Your task to perform on an android device: turn on notifications settings in the gmail app Image 0: 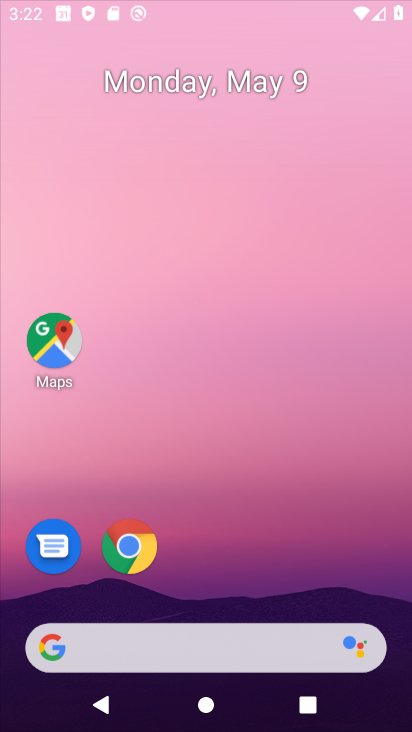
Step 0: drag from (270, 272) to (270, 96)
Your task to perform on an android device: turn on notifications settings in the gmail app Image 1: 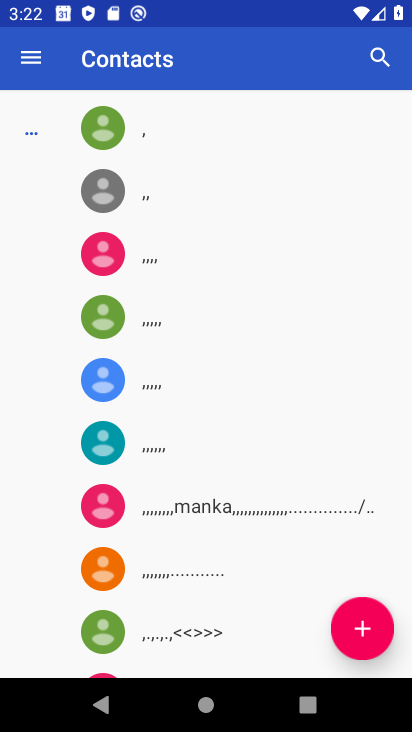
Step 1: press home button
Your task to perform on an android device: turn on notifications settings in the gmail app Image 2: 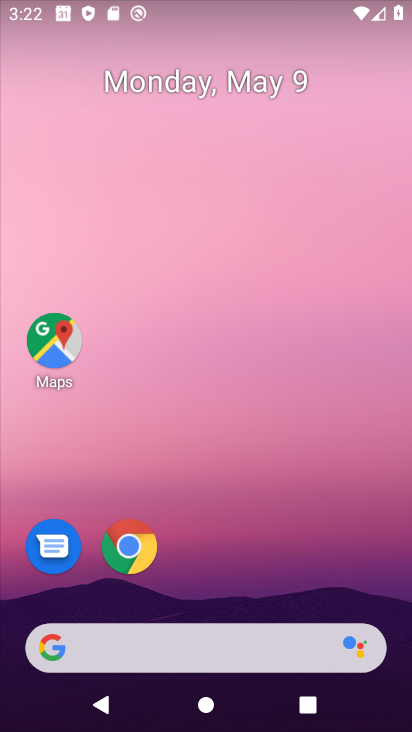
Step 2: drag from (284, 534) to (278, 42)
Your task to perform on an android device: turn on notifications settings in the gmail app Image 3: 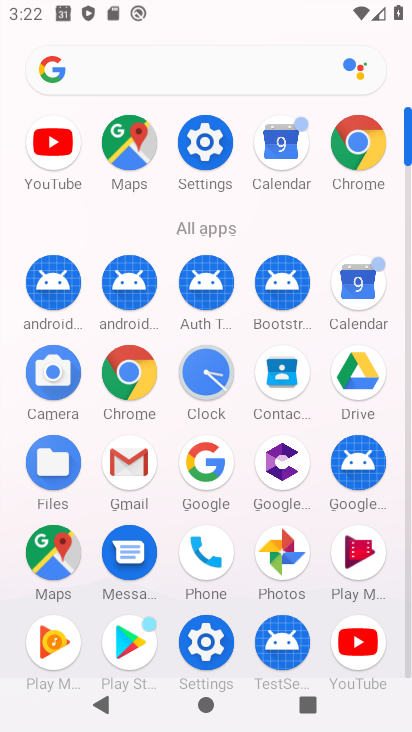
Step 3: click (127, 477)
Your task to perform on an android device: turn on notifications settings in the gmail app Image 4: 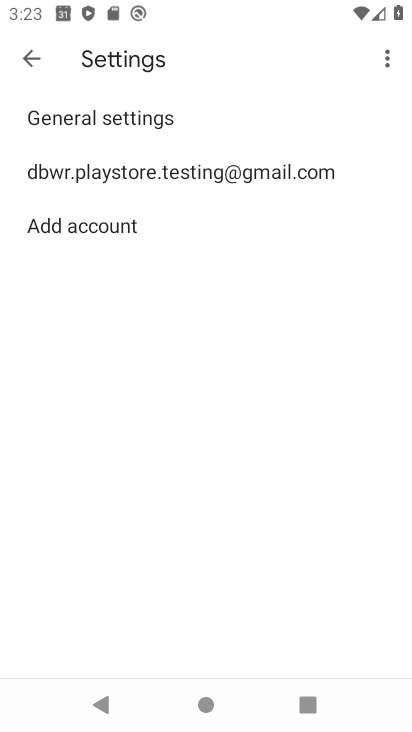
Step 4: press home button
Your task to perform on an android device: turn on notifications settings in the gmail app Image 5: 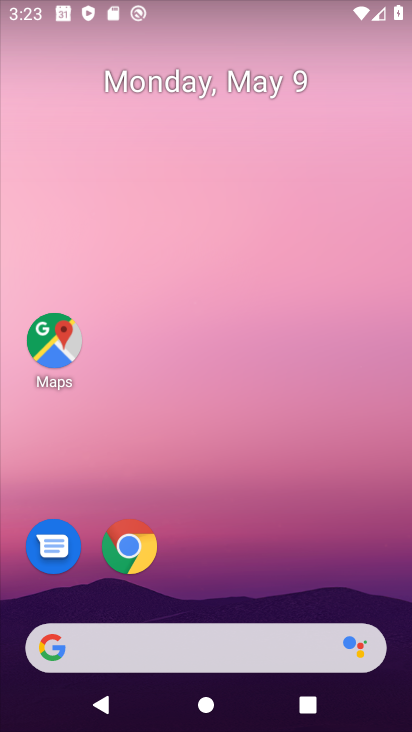
Step 5: drag from (324, 530) to (319, 68)
Your task to perform on an android device: turn on notifications settings in the gmail app Image 6: 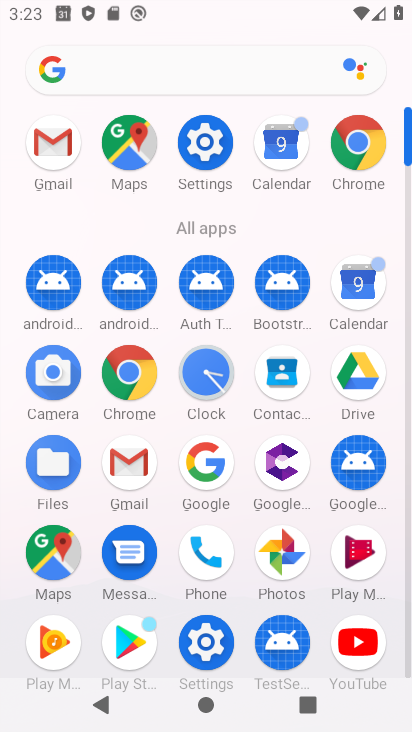
Step 6: click (40, 141)
Your task to perform on an android device: turn on notifications settings in the gmail app Image 7: 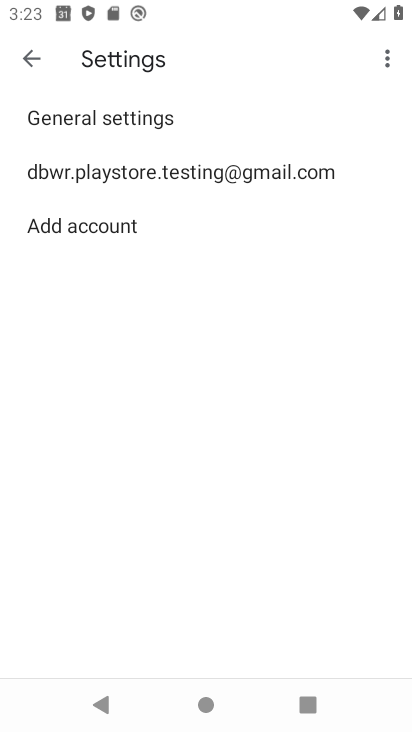
Step 7: click (69, 175)
Your task to perform on an android device: turn on notifications settings in the gmail app Image 8: 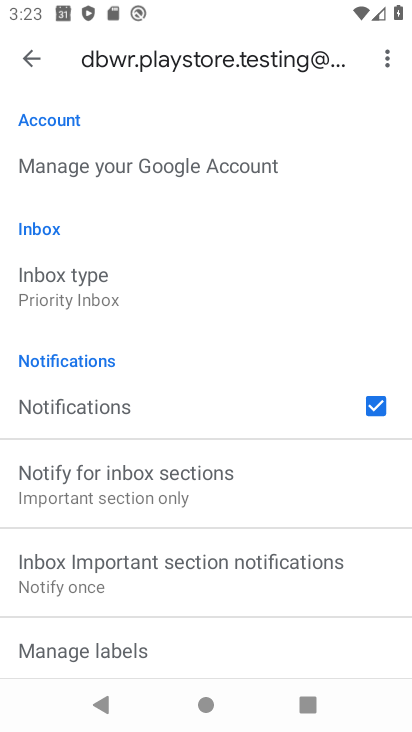
Step 8: click (94, 411)
Your task to perform on an android device: turn on notifications settings in the gmail app Image 9: 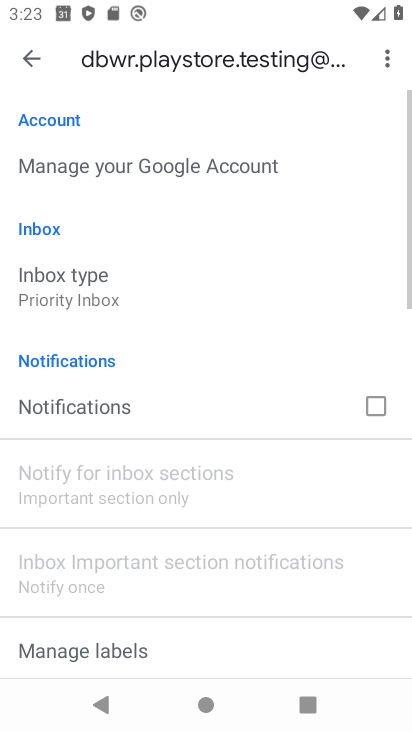
Step 9: click (94, 411)
Your task to perform on an android device: turn on notifications settings in the gmail app Image 10: 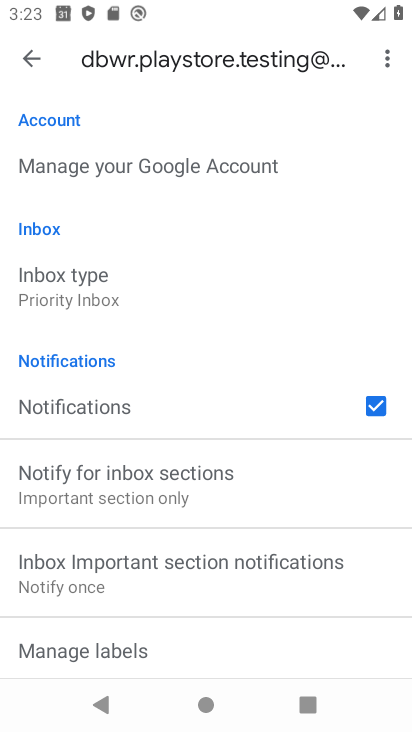
Step 10: click (94, 411)
Your task to perform on an android device: turn on notifications settings in the gmail app Image 11: 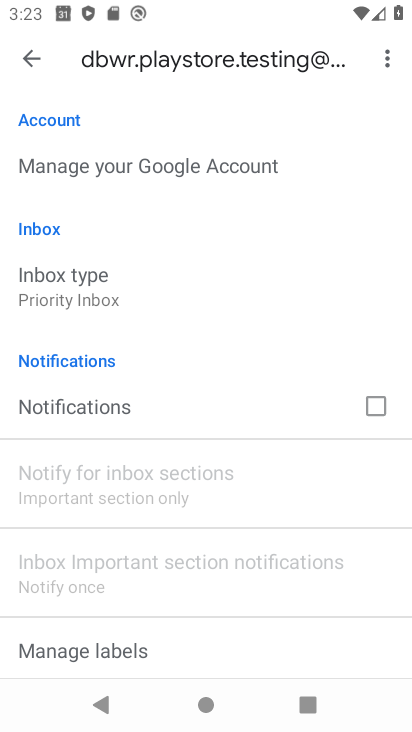
Step 11: click (94, 411)
Your task to perform on an android device: turn on notifications settings in the gmail app Image 12: 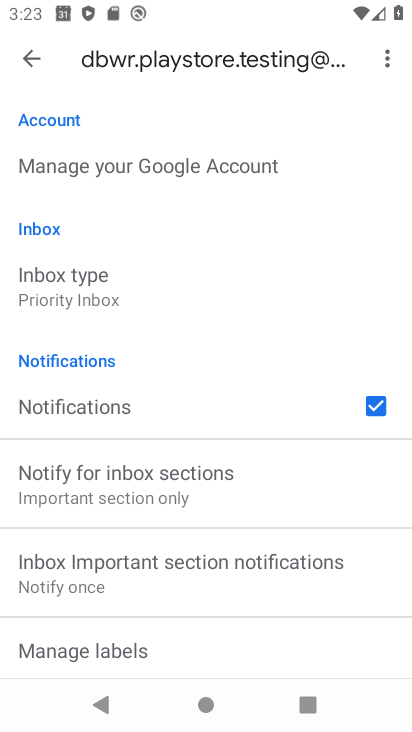
Step 12: task complete